Your task to perform on an android device: change notification settings in the gmail app Image 0: 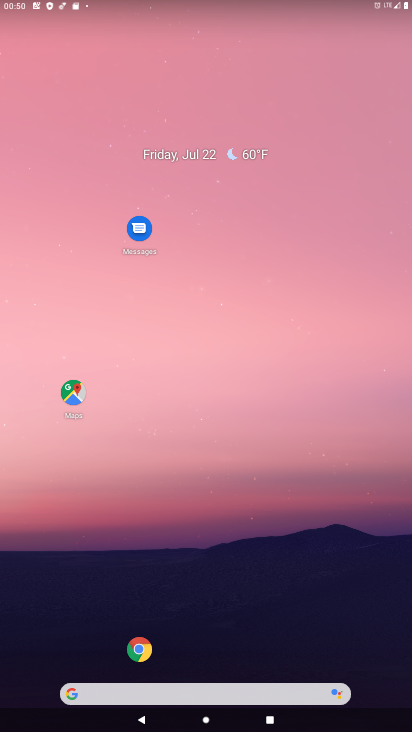
Step 0: drag from (48, 689) to (395, 118)
Your task to perform on an android device: change notification settings in the gmail app Image 1: 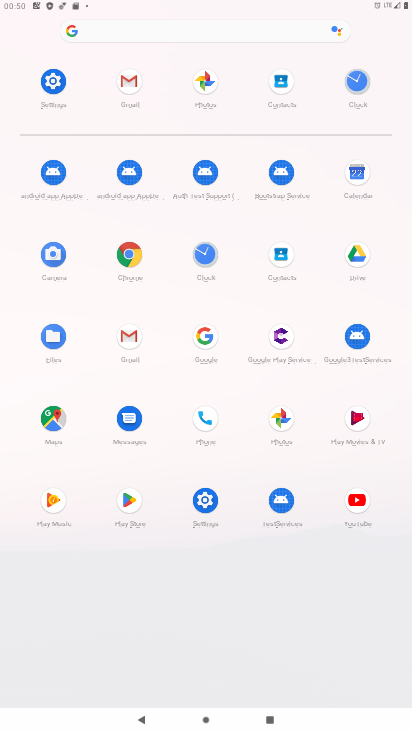
Step 1: click (134, 265)
Your task to perform on an android device: change notification settings in the gmail app Image 2: 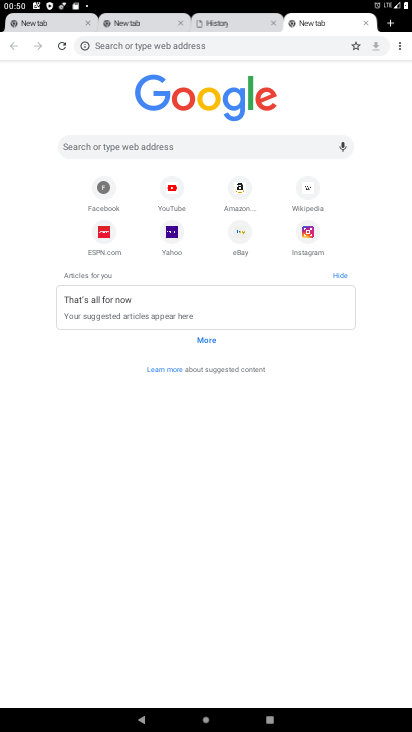
Step 2: press home button
Your task to perform on an android device: change notification settings in the gmail app Image 3: 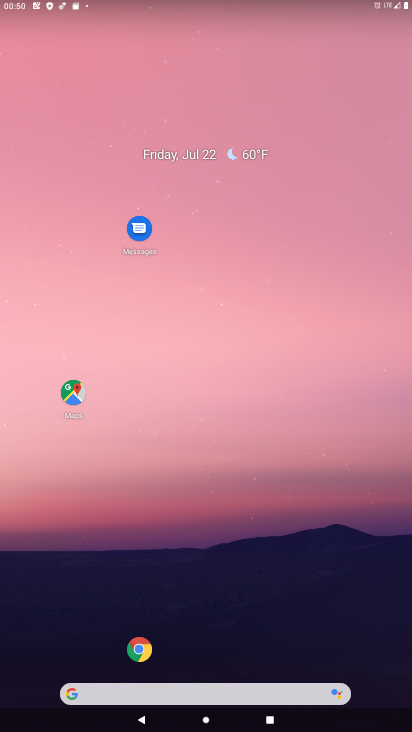
Step 3: drag from (210, 367) to (304, 127)
Your task to perform on an android device: change notification settings in the gmail app Image 4: 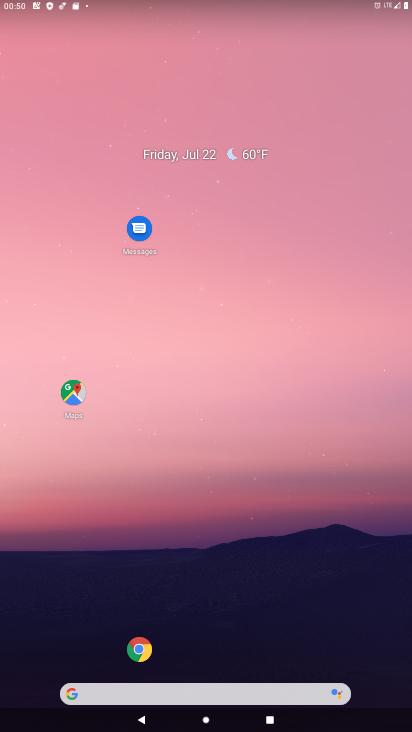
Step 4: drag from (142, 547) to (319, 154)
Your task to perform on an android device: change notification settings in the gmail app Image 5: 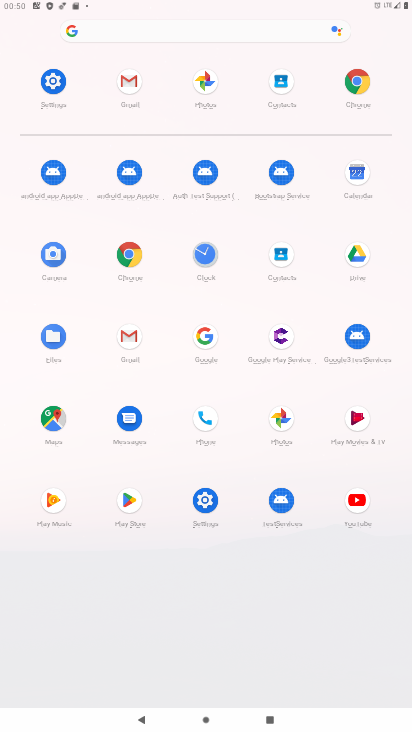
Step 5: click (132, 334)
Your task to perform on an android device: change notification settings in the gmail app Image 6: 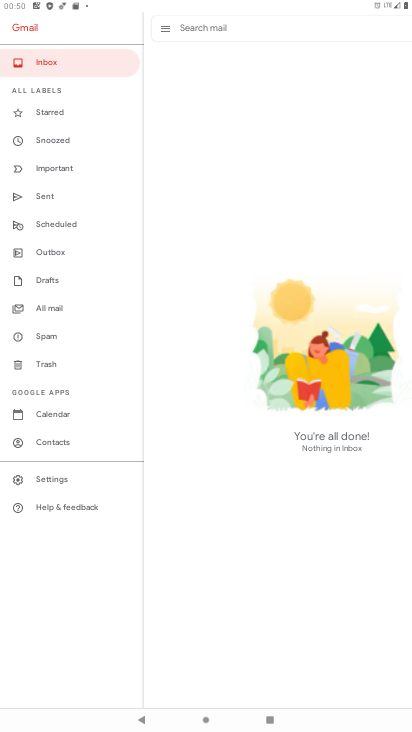
Step 6: click (56, 477)
Your task to perform on an android device: change notification settings in the gmail app Image 7: 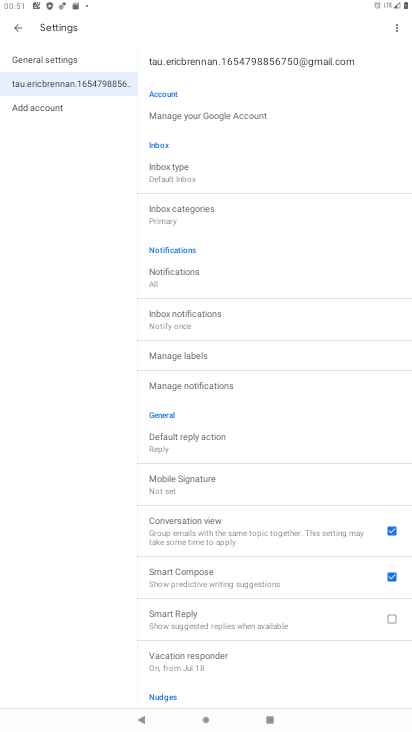
Step 7: click (186, 275)
Your task to perform on an android device: change notification settings in the gmail app Image 8: 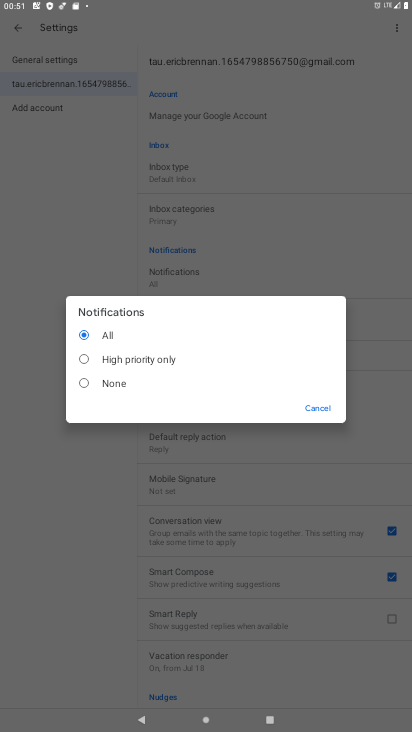
Step 8: task complete